Your task to perform on an android device: Go to ESPN.com Image 0: 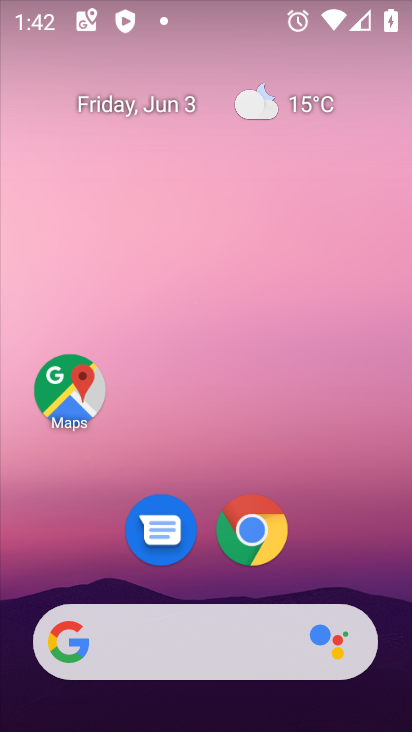
Step 0: click (234, 656)
Your task to perform on an android device: Go to ESPN.com Image 1: 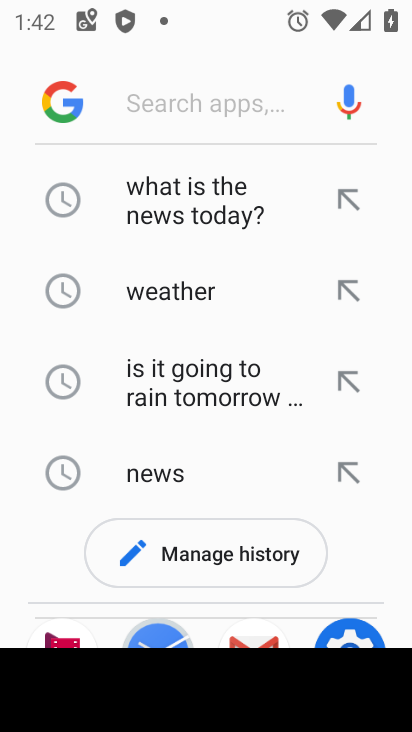
Step 1: type "ESPN.com"
Your task to perform on an android device: Go to ESPN.com Image 2: 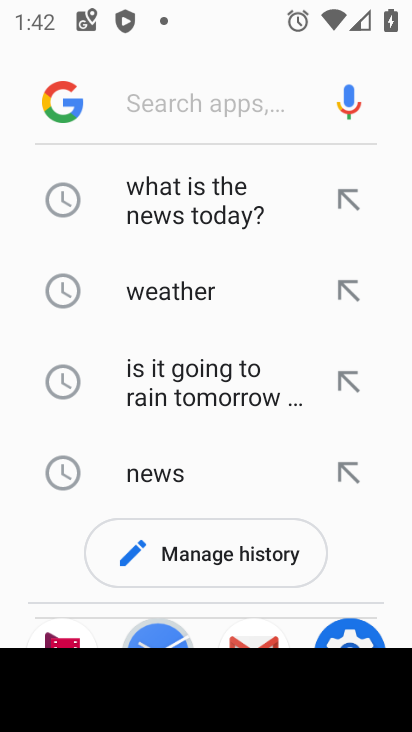
Step 2: click (176, 111)
Your task to perform on an android device: Go to ESPN.com Image 3: 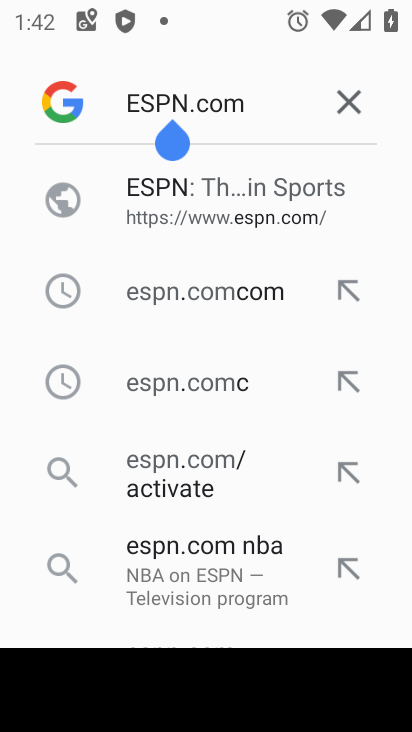
Step 3: click (188, 201)
Your task to perform on an android device: Go to ESPN.com Image 4: 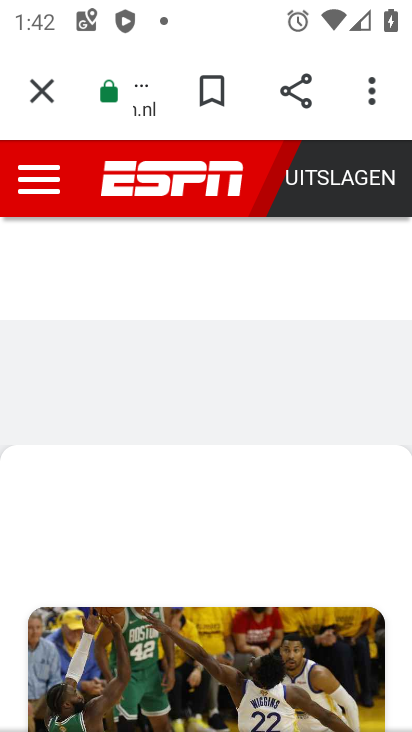
Step 4: task complete